Your task to perform on an android device: Search for Italian restaurants on Maps Image 0: 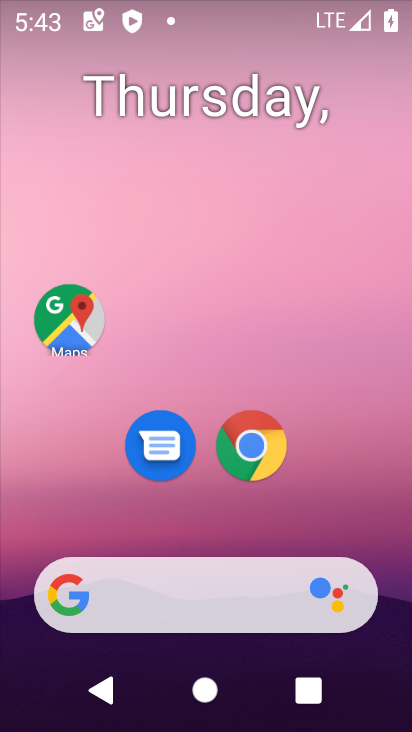
Step 0: click (82, 323)
Your task to perform on an android device: Search for Italian restaurants on Maps Image 1: 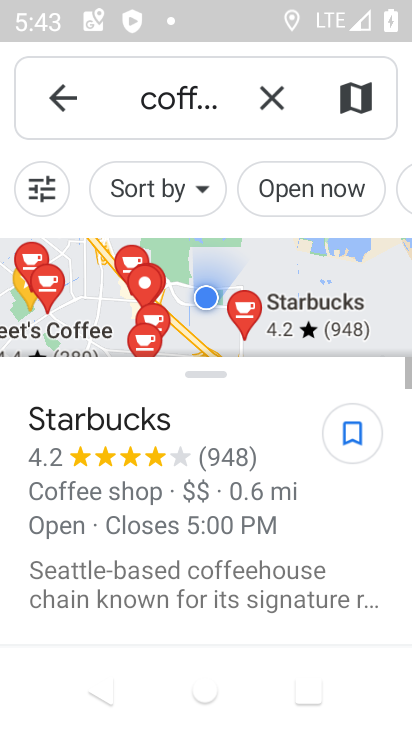
Step 1: click (272, 98)
Your task to perform on an android device: Search for Italian restaurants on Maps Image 2: 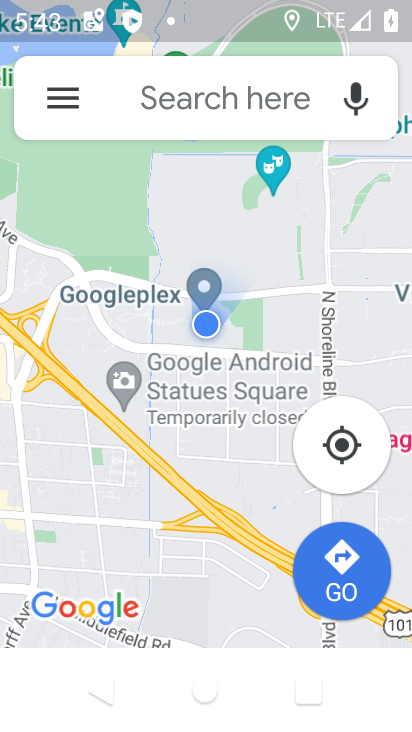
Step 2: click (151, 87)
Your task to perform on an android device: Search for Italian restaurants on Maps Image 3: 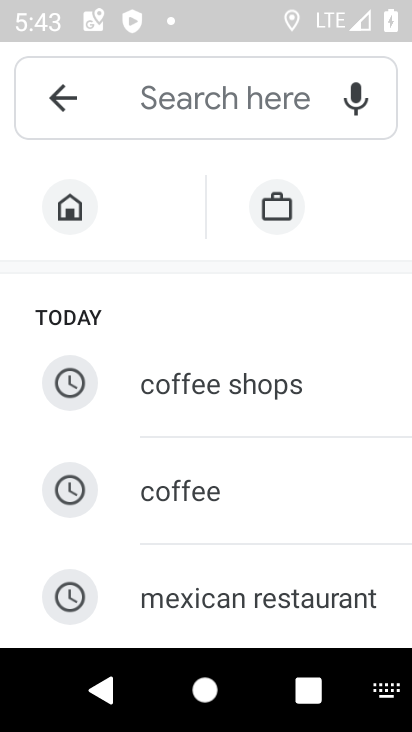
Step 3: type " Italian restaurants"
Your task to perform on an android device: Search for Italian restaurants on Maps Image 4: 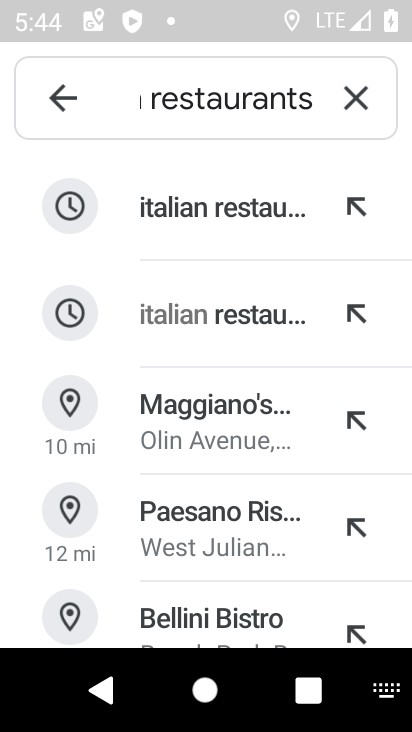
Step 4: click (211, 205)
Your task to perform on an android device: Search for Italian restaurants on Maps Image 5: 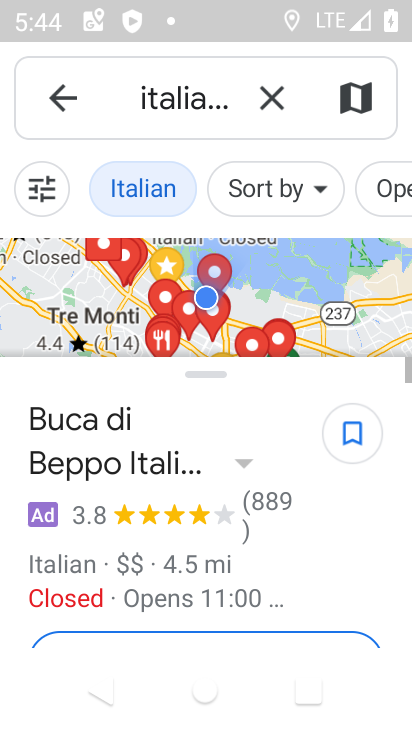
Step 5: task complete